Your task to perform on an android device: open chrome and create a bookmark for the current page Image 0: 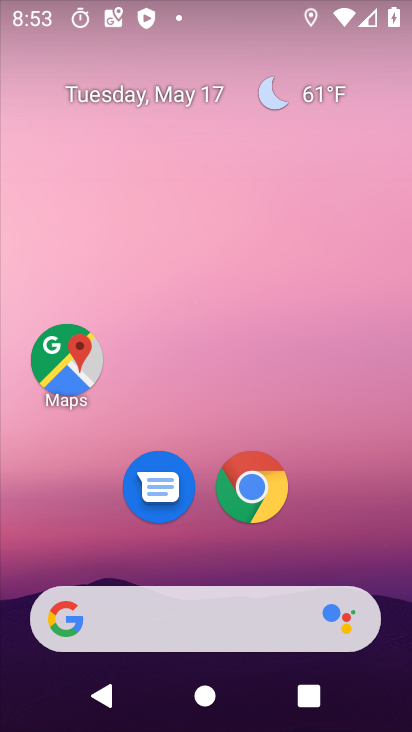
Step 0: press home button
Your task to perform on an android device: open chrome and create a bookmark for the current page Image 1: 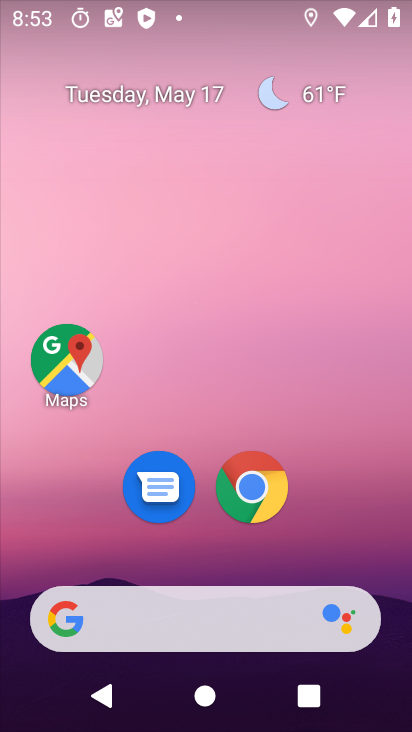
Step 1: click (252, 493)
Your task to perform on an android device: open chrome and create a bookmark for the current page Image 2: 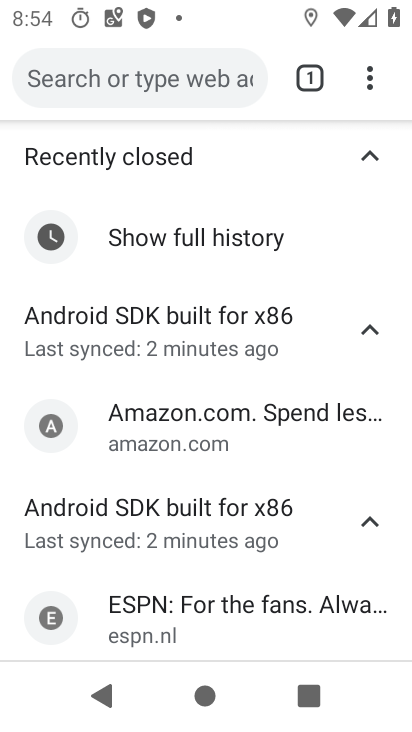
Step 2: click (369, 98)
Your task to perform on an android device: open chrome and create a bookmark for the current page Image 3: 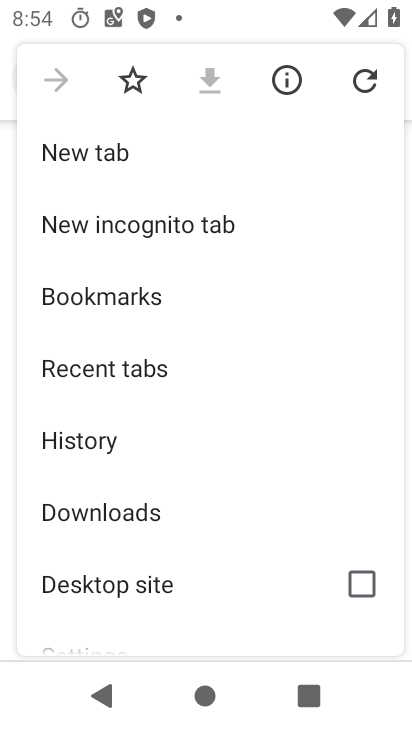
Step 3: click (133, 84)
Your task to perform on an android device: open chrome and create a bookmark for the current page Image 4: 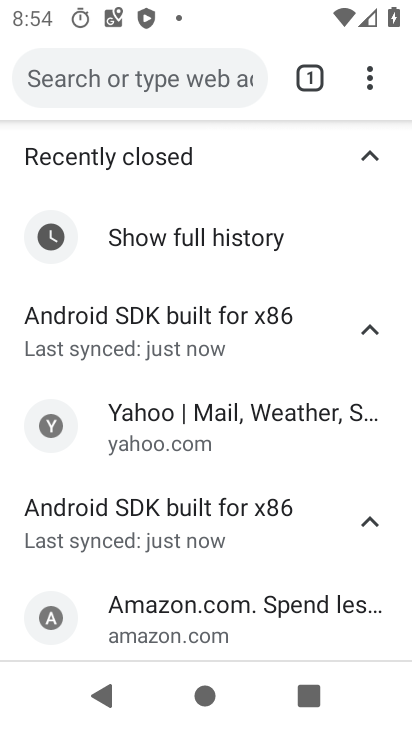
Step 4: task complete